Your task to perform on an android device: delete browsing data in the chrome app Image 0: 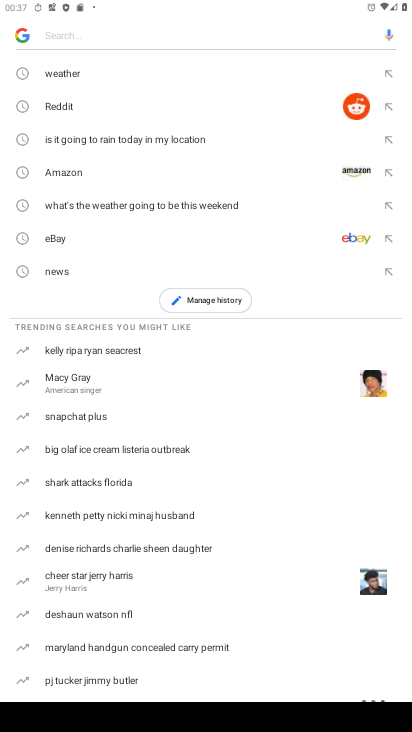
Step 0: press home button
Your task to perform on an android device: delete browsing data in the chrome app Image 1: 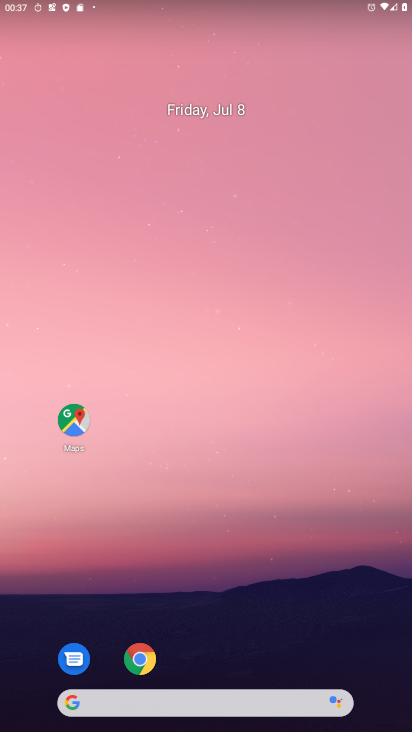
Step 1: click (145, 657)
Your task to perform on an android device: delete browsing data in the chrome app Image 2: 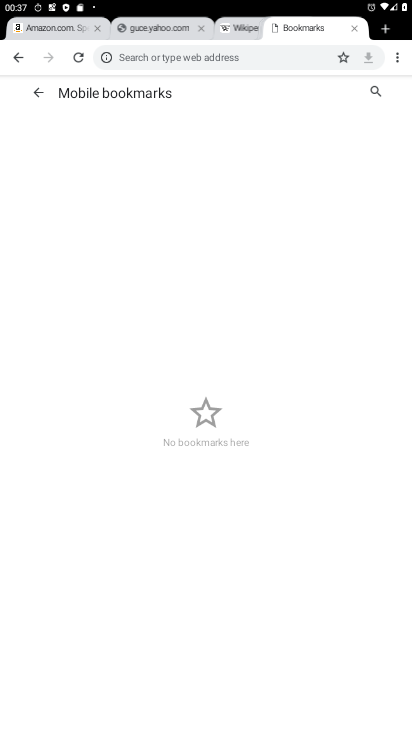
Step 2: click (398, 52)
Your task to perform on an android device: delete browsing data in the chrome app Image 3: 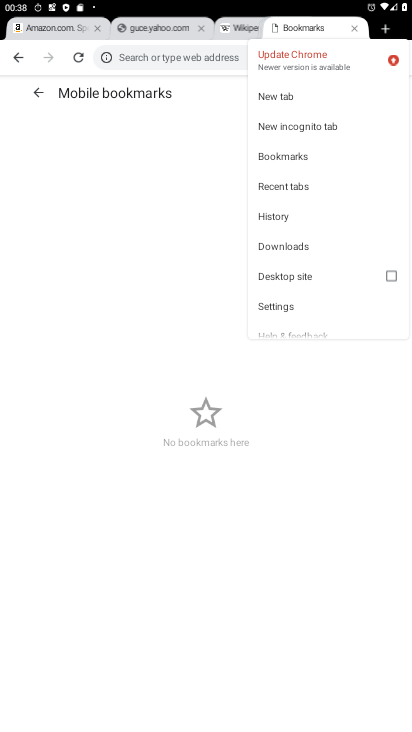
Step 3: click (280, 217)
Your task to perform on an android device: delete browsing data in the chrome app Image 4: 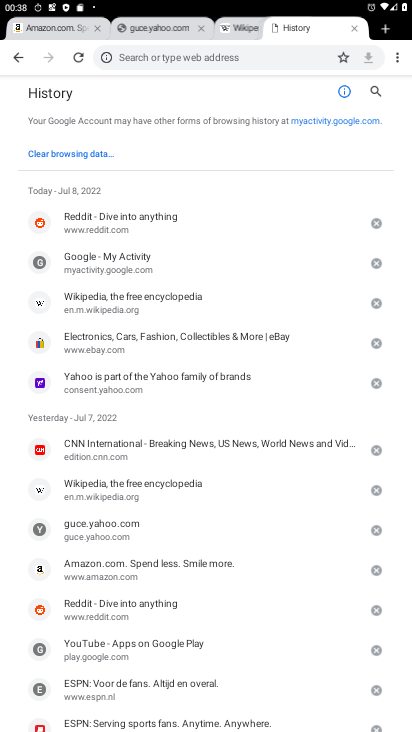
Step 4: click (81, 153)
Your task to perform on an android device: delete browsing data in the chrome app Image 5: 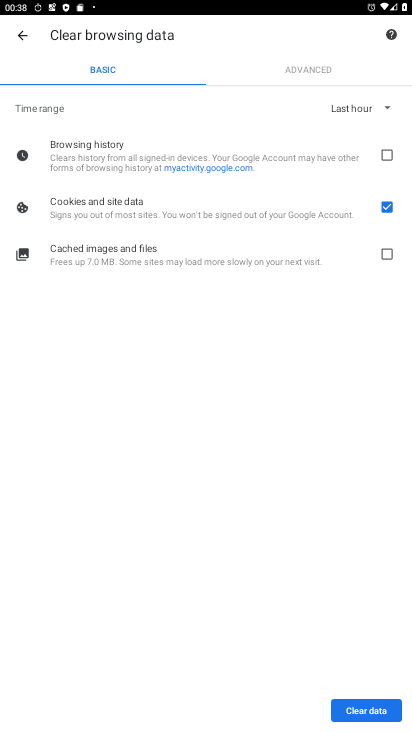
Step 5: click (382, 152)
Your task to perform on an android device: delete browsing data in the chrome app Image 6: 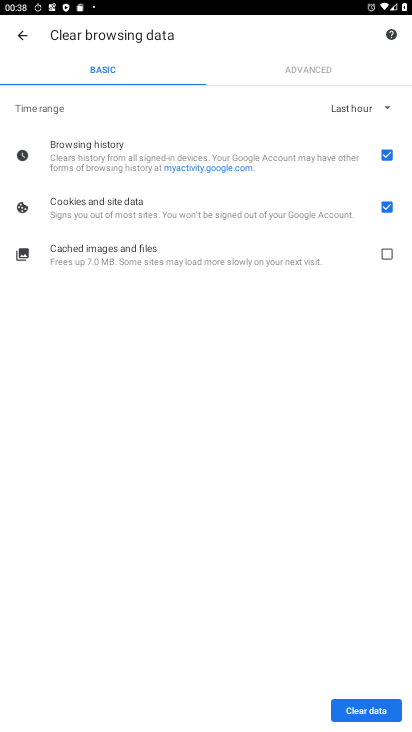
Step 6: click (385, 206)
Your task to perform on an android device: delete browsing data in the chrome app Image 7: 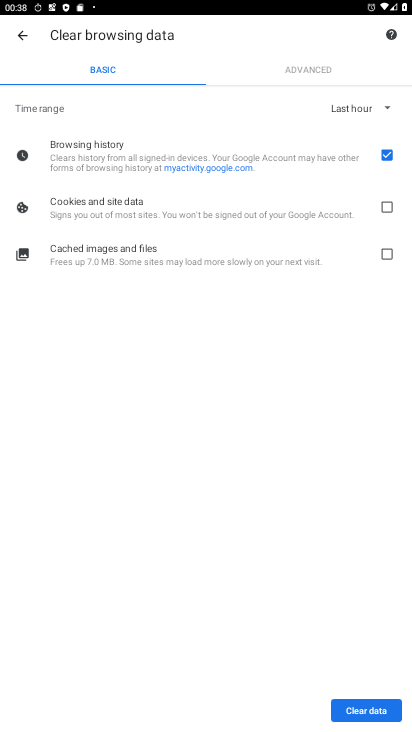
Step 7: click (366, 714)
Your task to perform on an android device: delete browsing data in the chrome app Image 8: 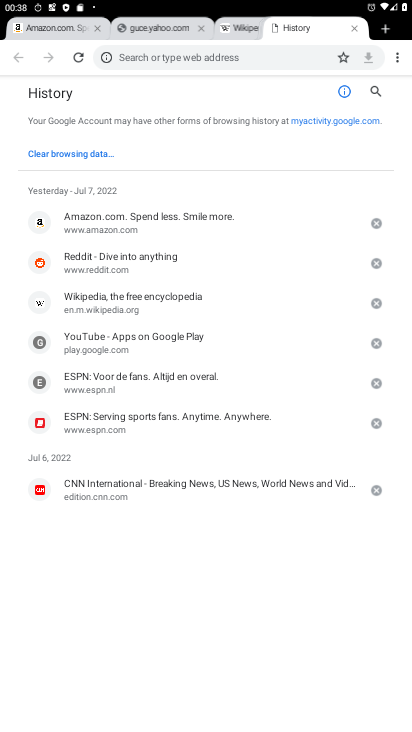
Step 8: task complete